Your task to perform on an android device: Go to eBay Image 0: 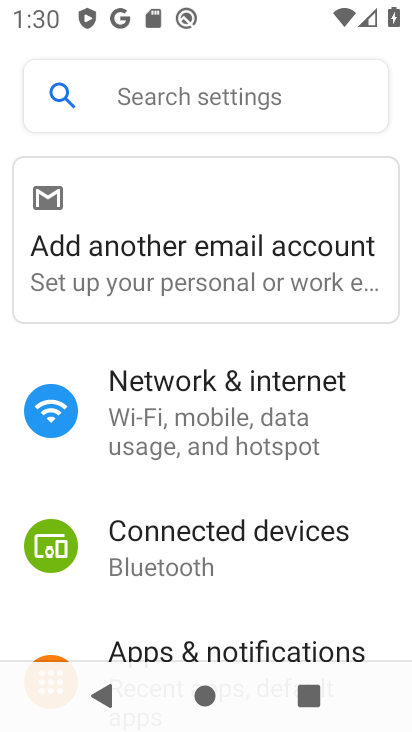
Step 0: press home button
Your task to perform on an android device: Go to eBay Image 1: 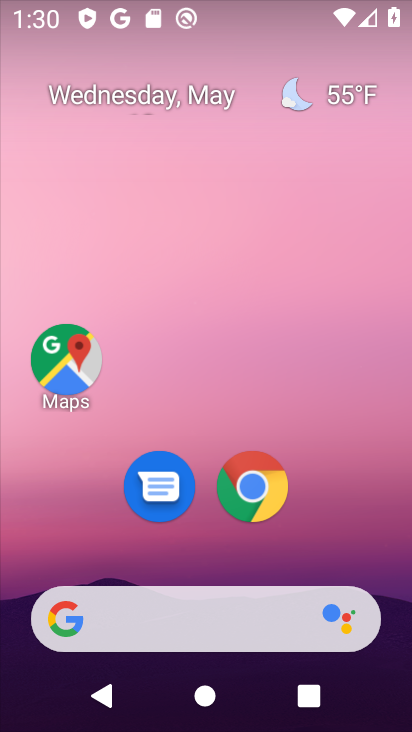
Step 1: click (253, 583)
Your task to perform on an android device: Go to eBay Image 2: 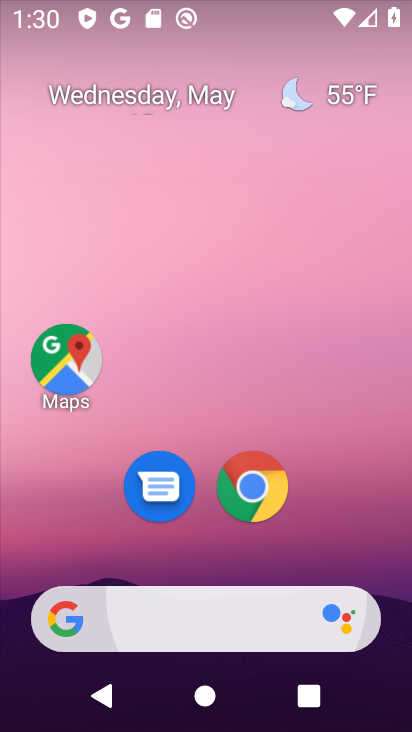
Step 2: click (253, 583)
Your task to perform on an android device: Go to eBay Image 3: 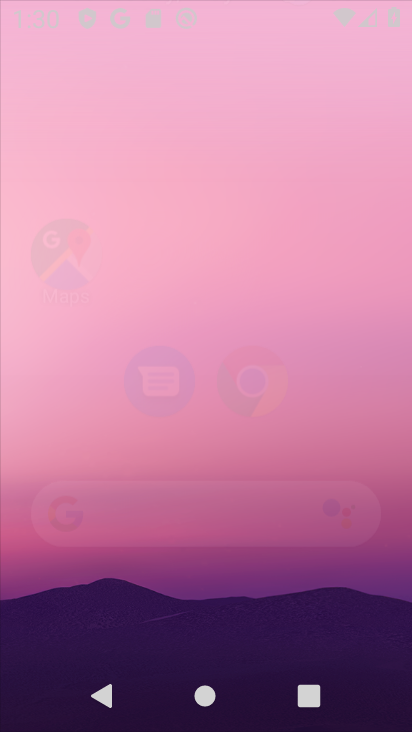
Step 3: click (255, 524)
Your task to perform on an android device: Go to eBay Image 4: 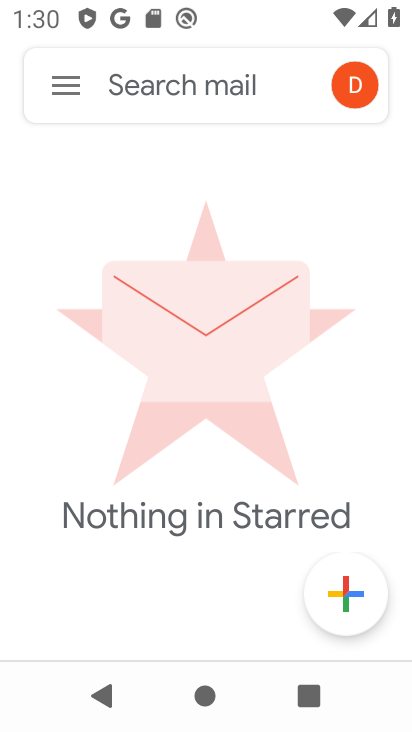
Step 4: press home button
Your task to perform on an android device: Go to eBay Image 5: 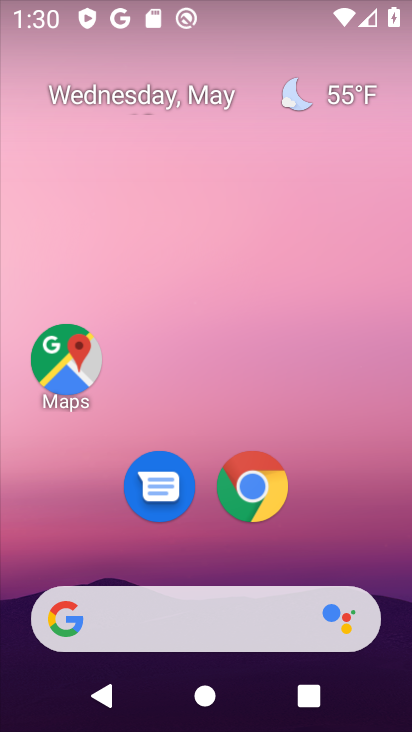
Step 5: click (260, 490)
Your task to perform on an android device: Go to eBay Image 6: 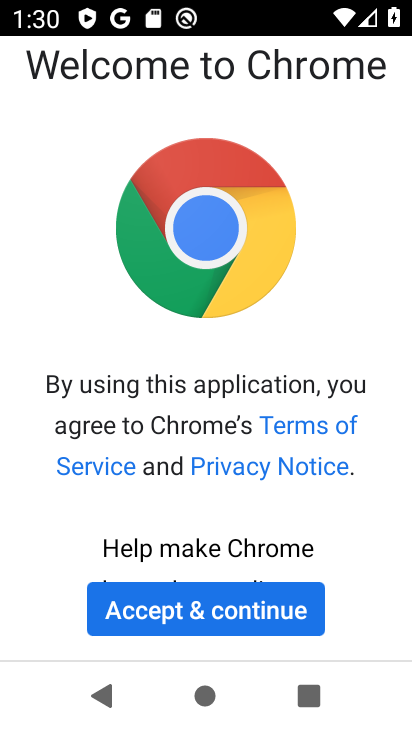
Step 6: click (265, 607)
Your task to perform on an android device: Go to eBay Image 7: 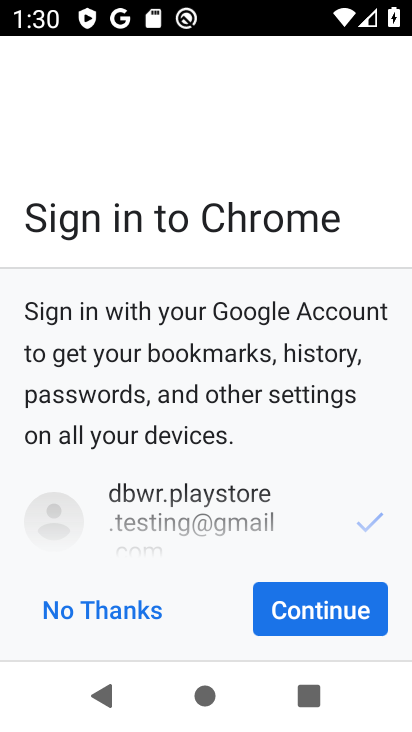
Step 7: click (147, 620)
Your task to perform on an android device: Go to eBay Image 8: 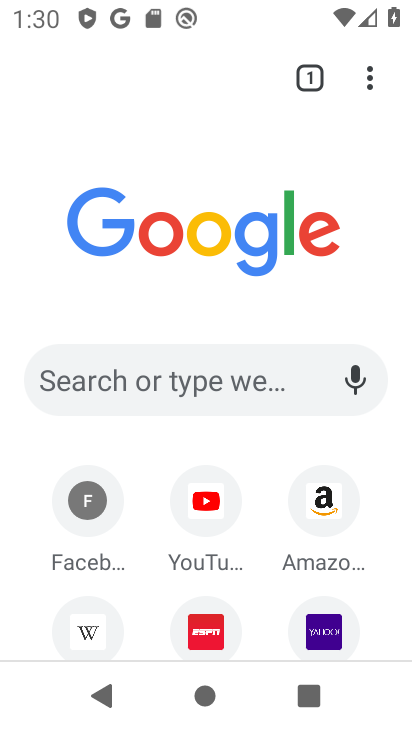
Step 8: drag from (373, 571) to (390, 211)
Your task to perform on an android device: Go to eBay Image 9: 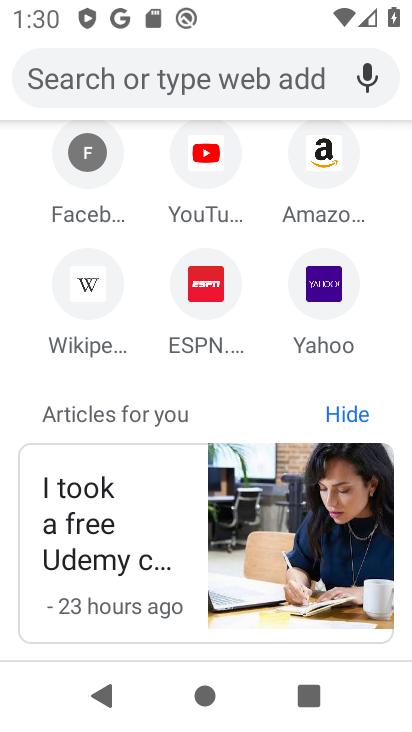
Step 9: click (164, 76)
Your task to perform on an android device: Go to eBay Image 10: 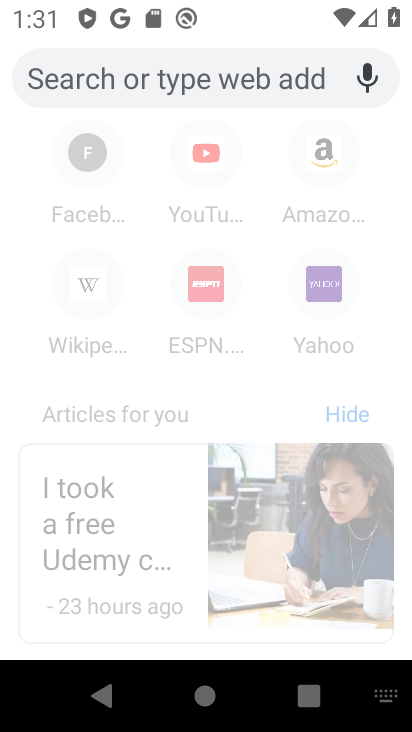
Step 10: type "ebay"
Your task to perform on an android device: Go to eBay Image 11: 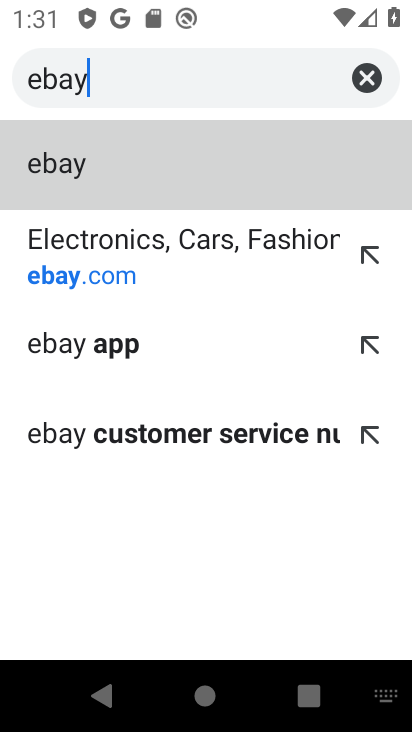
Step 11: click (222, 258)
Your task to perform on an android device: Go to eBay Image 12: 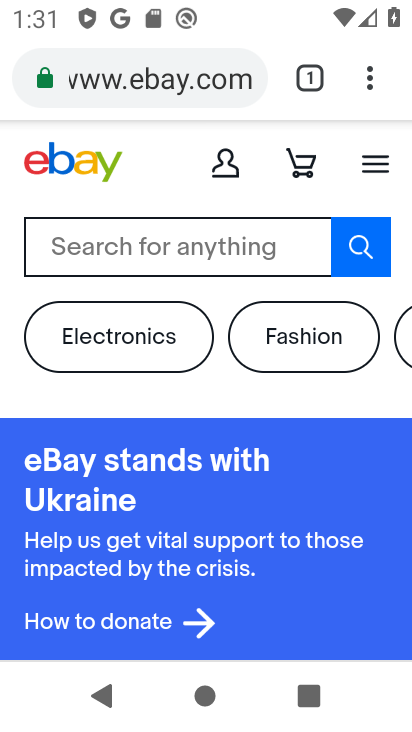
Step 12: task complete